Your task to perform on an android device: Open Youtube and go to "Your channel" Image 0: 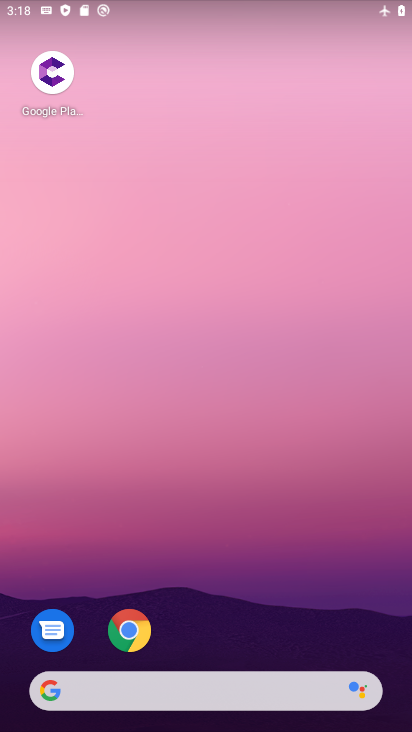
Step 0: drag from (282, 650) to (178, 180)
Your task to perform on an android device: Open Youtube and go to "Your channel" Image 1: 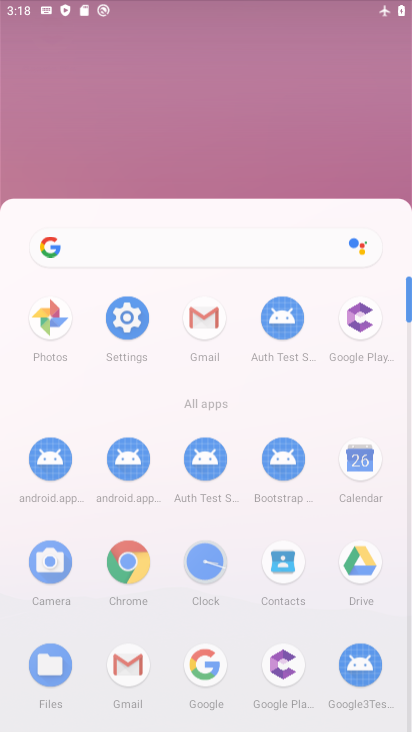
Step 1: drag from (202, 466) to (224, 307)
Your task to perform on an android device: Open Youtube and go to "Your channel" Image 2: 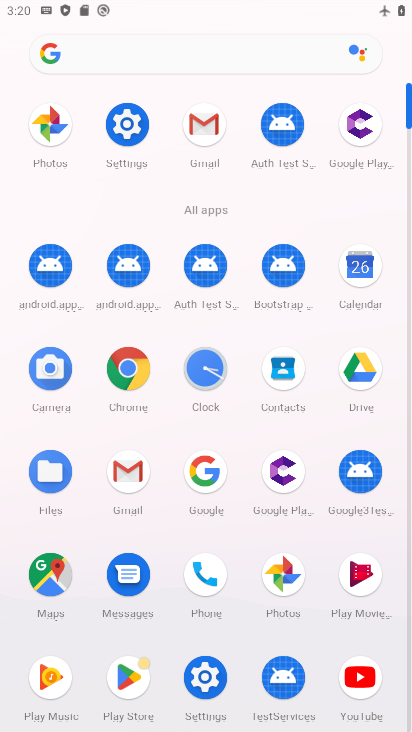
Step 2: click (368, 671)
Your task to perform on an android device: Open Youtube and go to "Your channel" Image 3: 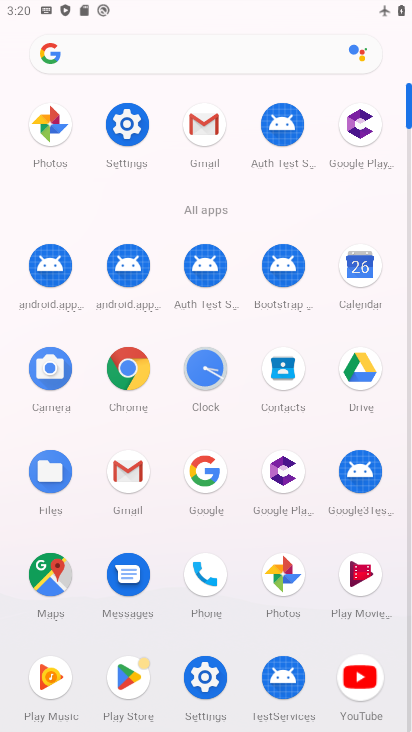
Step 3: click (357, 667)
Your task to perform on an android device: Open Youtube and go to "Your channel" Image 4: 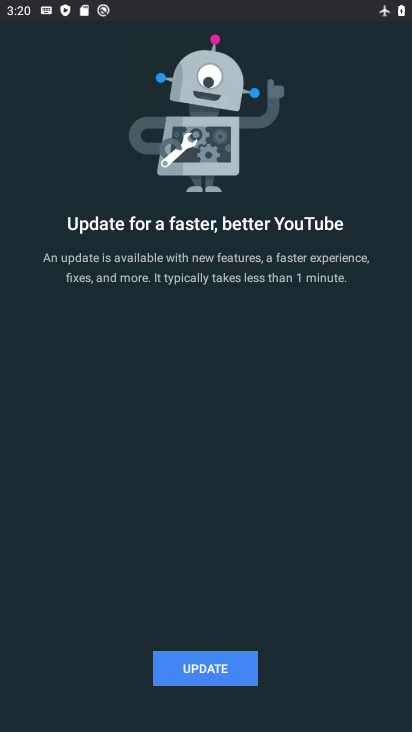
Step 4: click (213, 668)
Your task to perform on an android device: Open Youtube and go to "Your channel" Image 5: 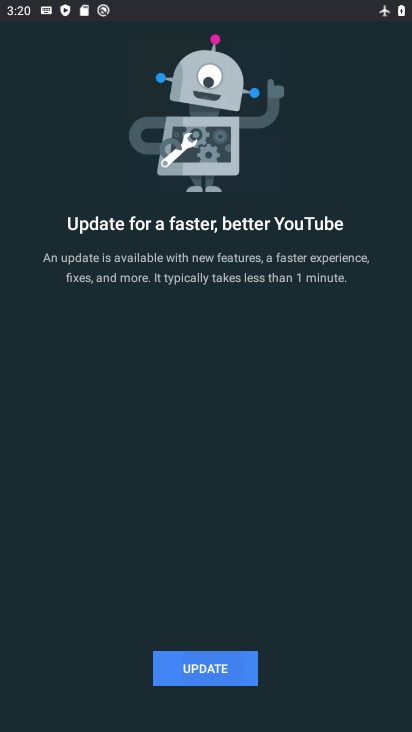
Step 5: click (214, 667)
Your task to perform on an android device: Open Youtube and go to "Your channel" Image 6: 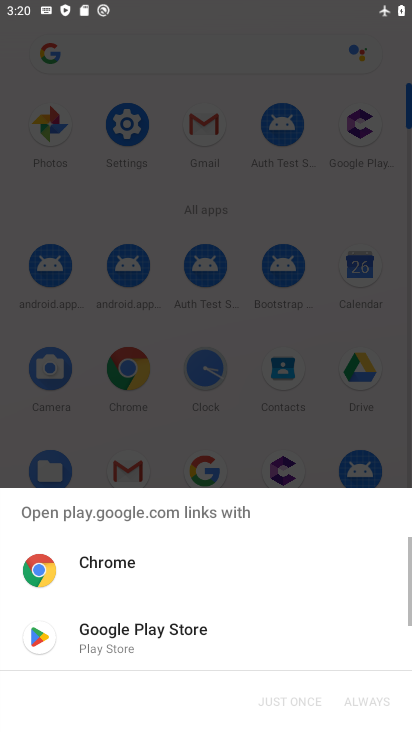
Step 6: click (107, 643)
Your task to perform on an android device: Open Youtube and go to "Your channel" Image 7: 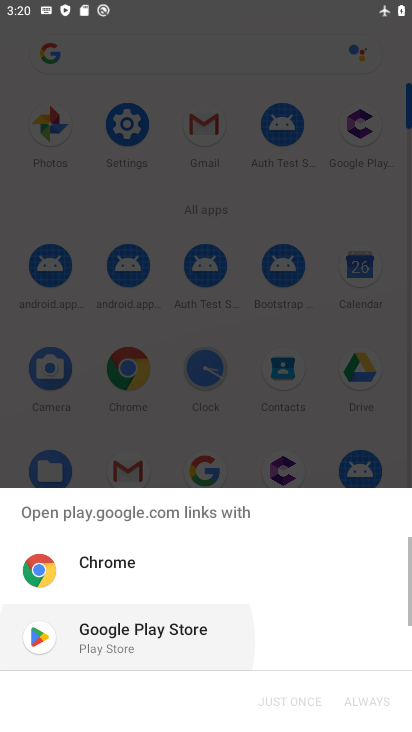
Step 7: click (108, 646)
Your task to perform on an android device: Open Youtube and go to "Your channel" Image 8: 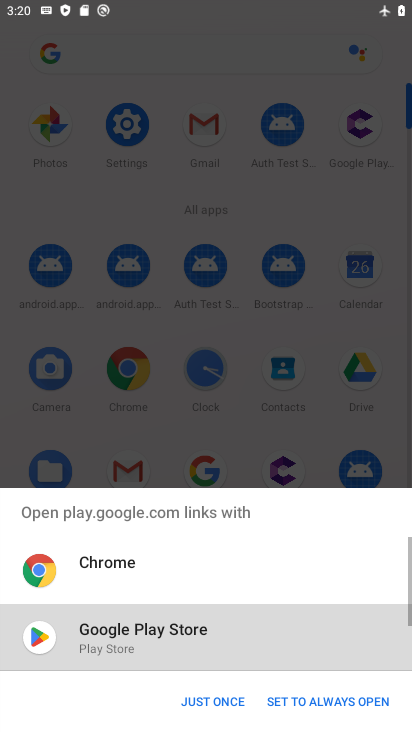
Step 8: click (108, 646)
Your task to perform on an android device: Open Youtube and go to "Your channel" Image 9: 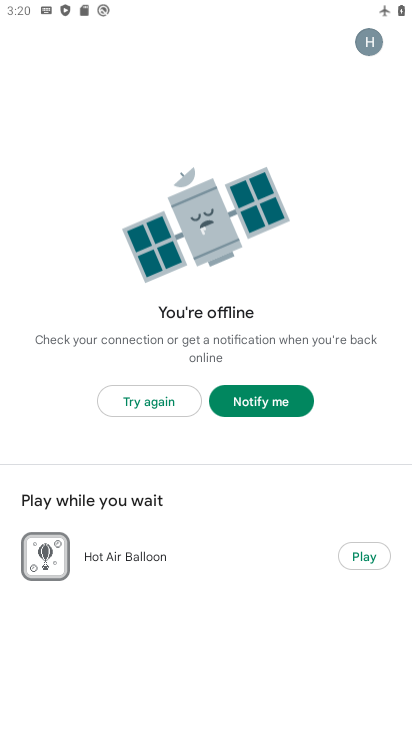
Step 9: task complete